Your task to perform on an android device: Go to calendar. Show me events next week Image 0: 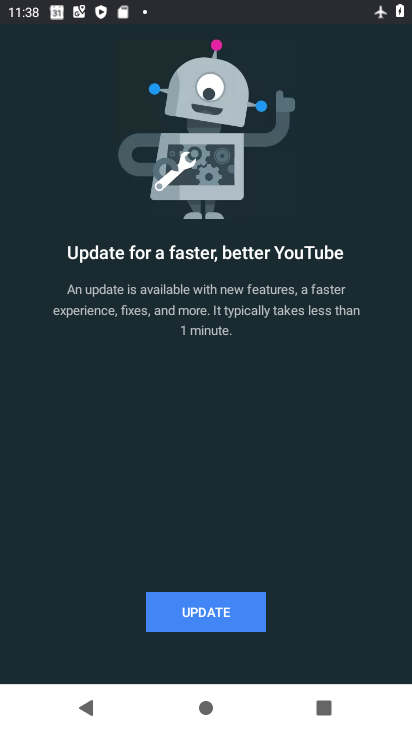
Step 0: press home button
Your task to perform on an android device: Go to calendar. Show me events next week Image 1: 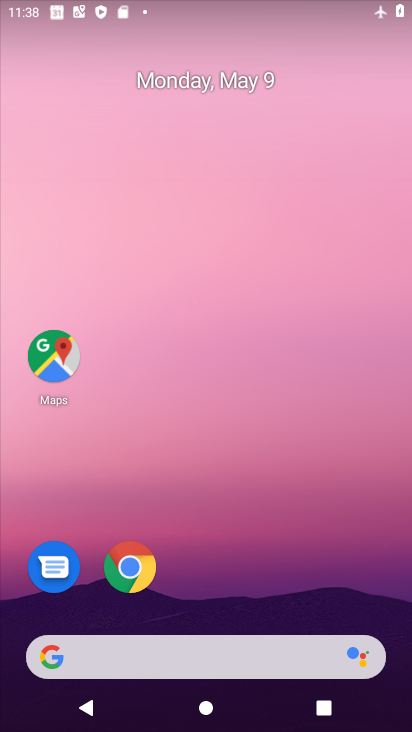
Step 1: drag from (330, 595) to (273, 30)
Your task to perform on an android device: Go to calendar. Show me events next week Image 2: 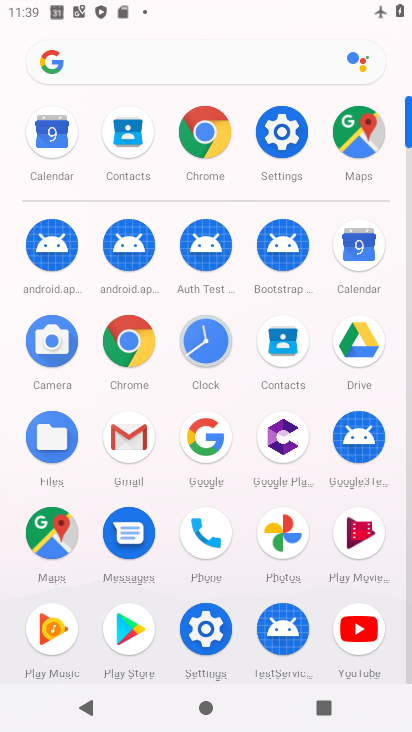
Step 2: click (356, 239)
Your task to perform on an android device: Go to calendar. Show me events next week Image 3: 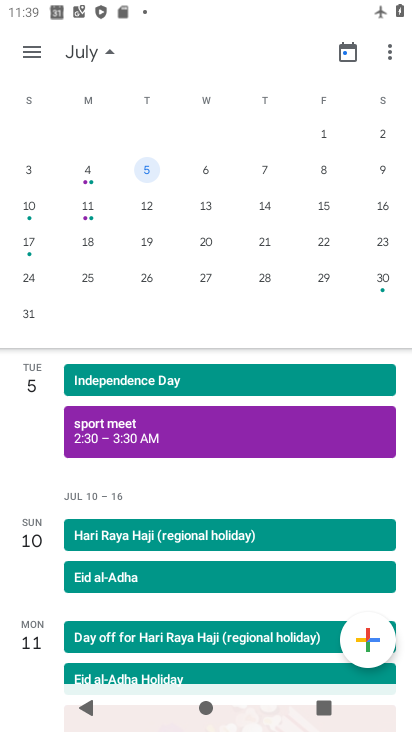
Step 3: click (94, 166)
Your task to perform on an android device: Go to calendar. Show me events next week Image 4: 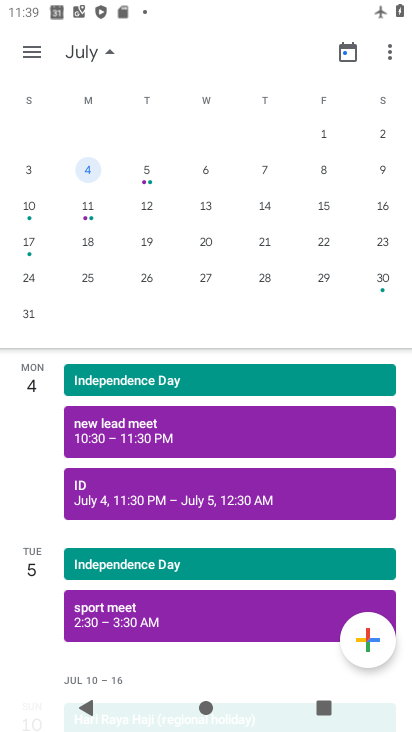
Step 4: click (211, 425)
Your task to perform on an android device: Go to calendar. Show me events next week Image 5: 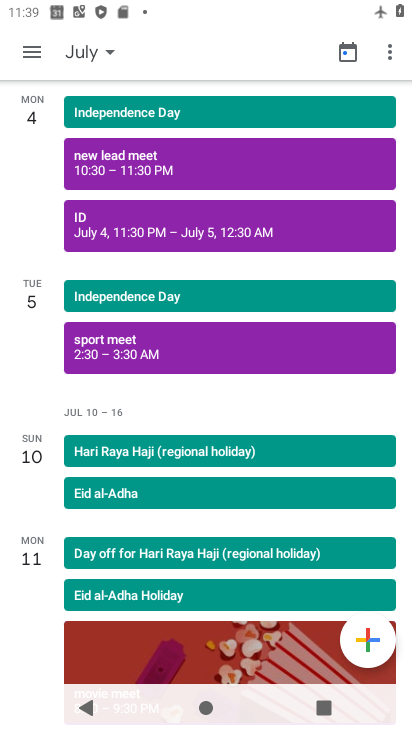
Step 5: task complete